Your task to perform on an android device: turn smart compose on in the gmail app Image 0: 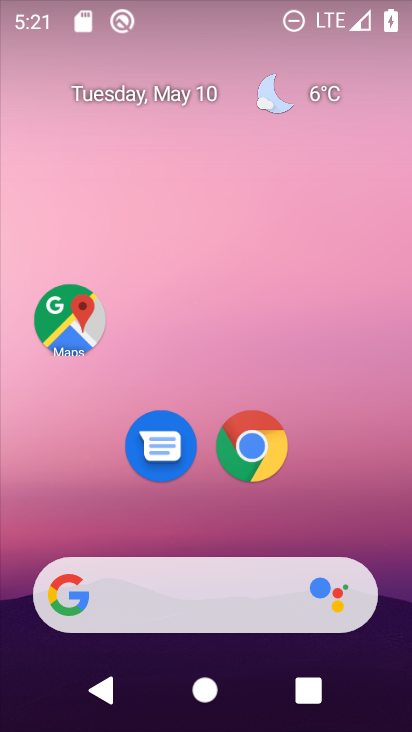
Step 0: drag from (282, 488) to (266, 103)
Your task to perform on an android device: turn smart compose on in the gmail app Image 1: 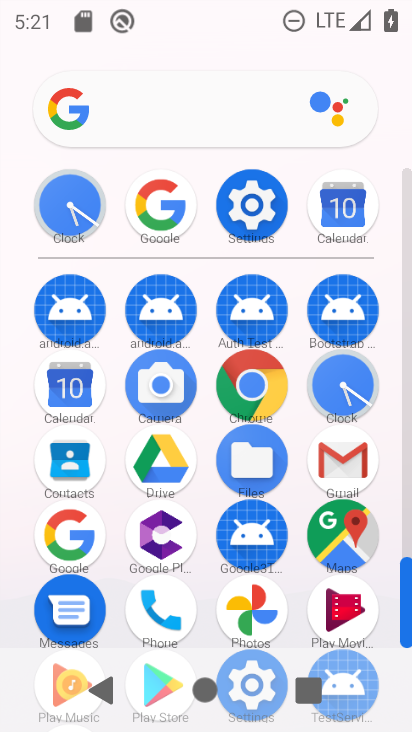
Step 1: click (342, 460)
Your task to perform on an android device: turn smart compose on in the gmail app Image 2: 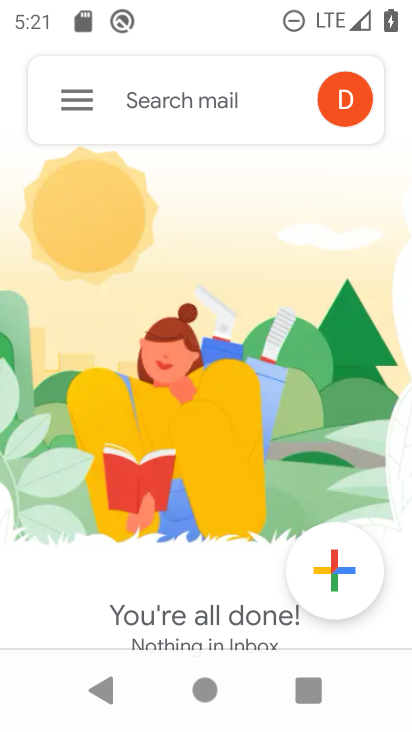
Step 2: click (77, 115)
Your task to perform on an android device: turn smart compose on in the gmail app Image 3: 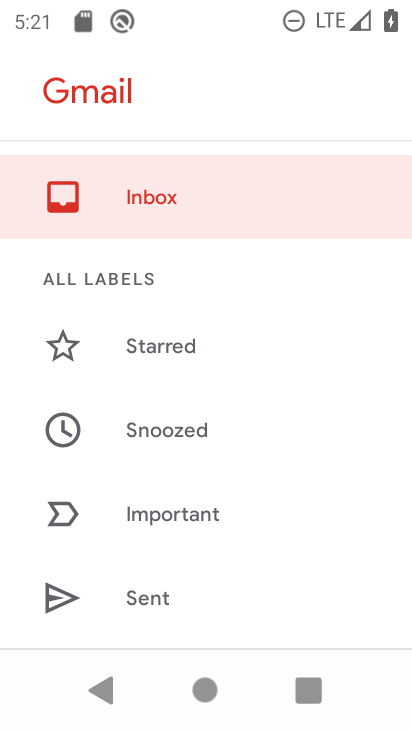
Step 3: drag from (235, 564) to (216, 111)
Your task to perform on an android device: turn smart compose on in the gmail app Image 4: 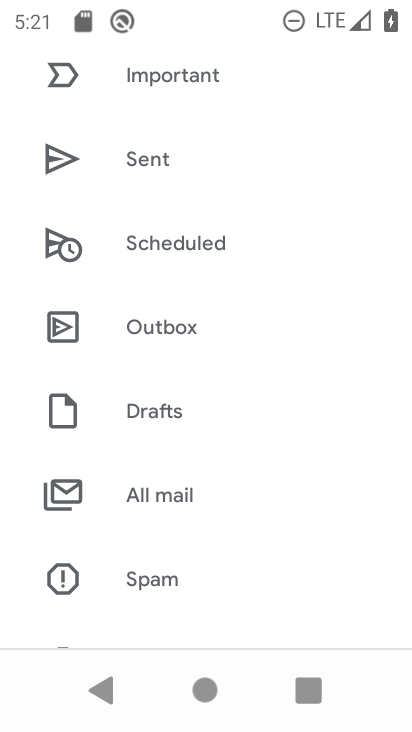
Step 4: drag from (248, 558) to (209, 110)
Your task to perform on an android device: turn smart compose on in the gmail app Image 5: 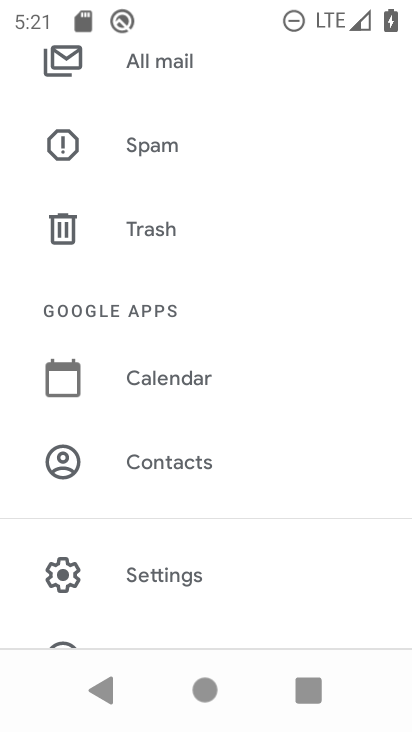
Step 5: click (189, 573)
Your task to perform on an android device: turn smart compose on in the gmail app Image 6: 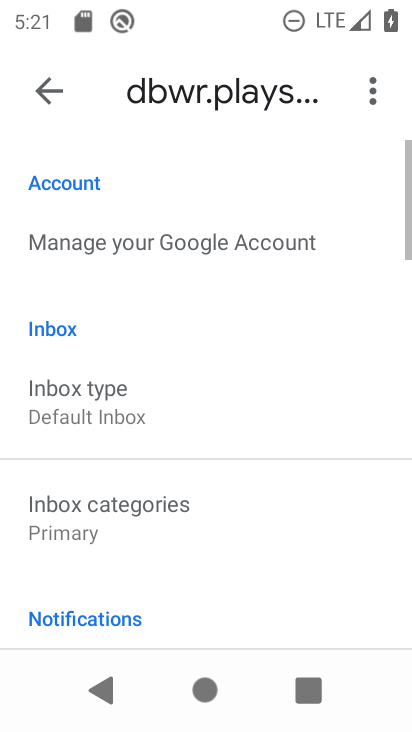
Step 6: task complete